Your task to perform on an android device: Show me recent news Image 0: 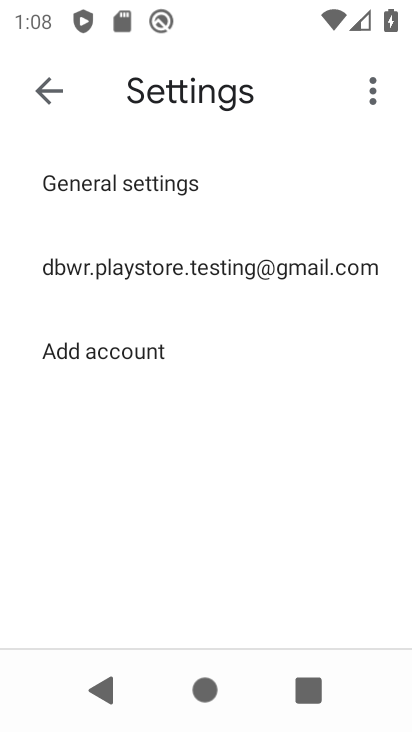
Step 0: press home button
Your task to perform on an android device: Show me recent news Image 1: 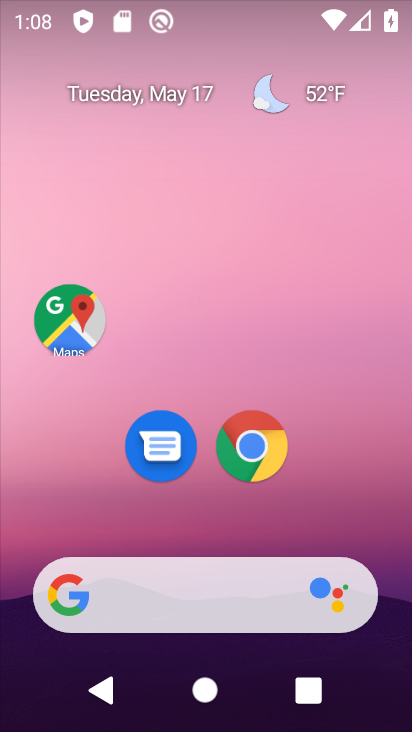
Step 1: drag from (73, 194) to (13, 216)
Your task to perform on an android device: Show me recent news Image 2: 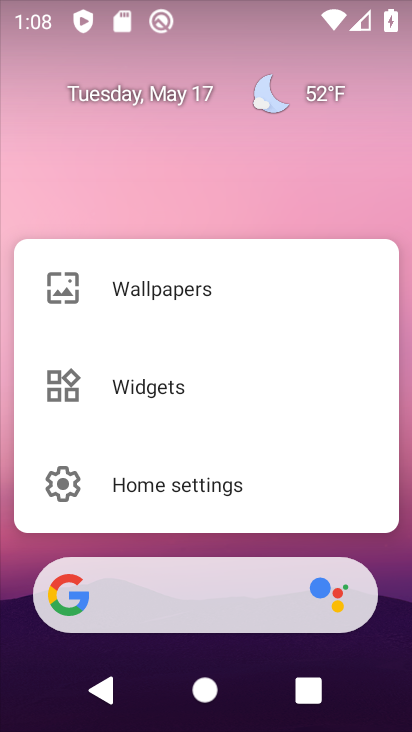
Step 2: click (7, 199)
Your task to perform on an android device: Show me recent news Image 3: 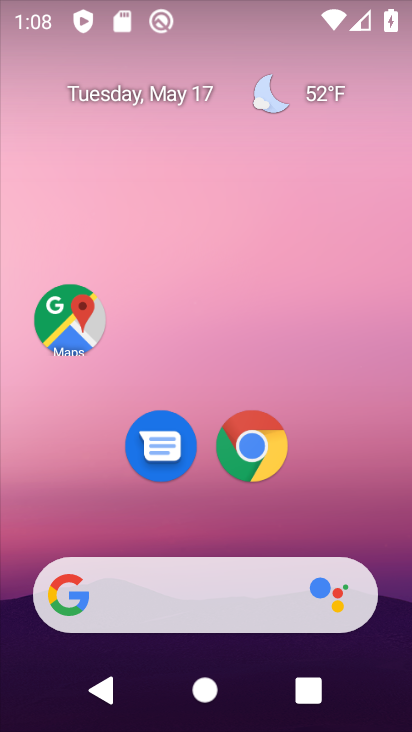
Step 3: task complete